Your task to perform on an android device: Open Google Maps and go to "Timeline" Image 0: 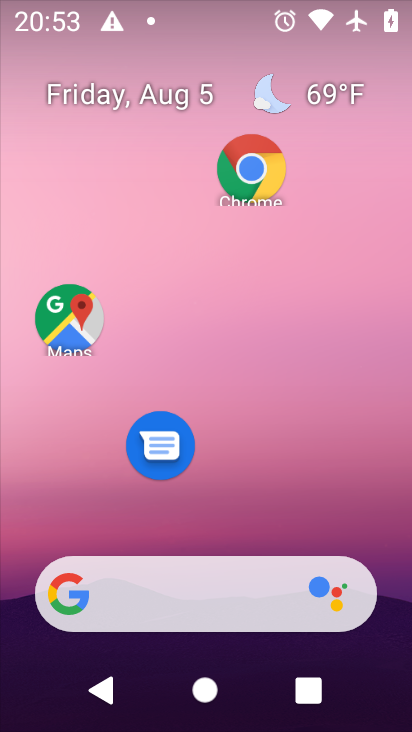
Step 0: click (55, 334)
Your task to perform on an android device: Open Google Maps and go to "Timeline" Image 1: 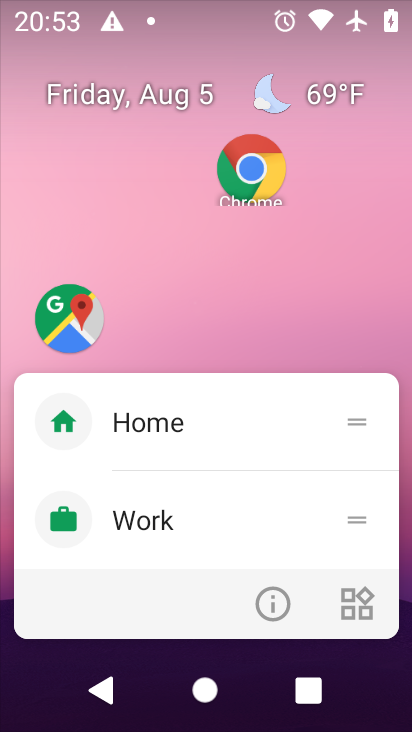
Step 1: click (75, 328)
Your task to perform on an android device: Open Google Maps and go to "Timeline" Image 2: 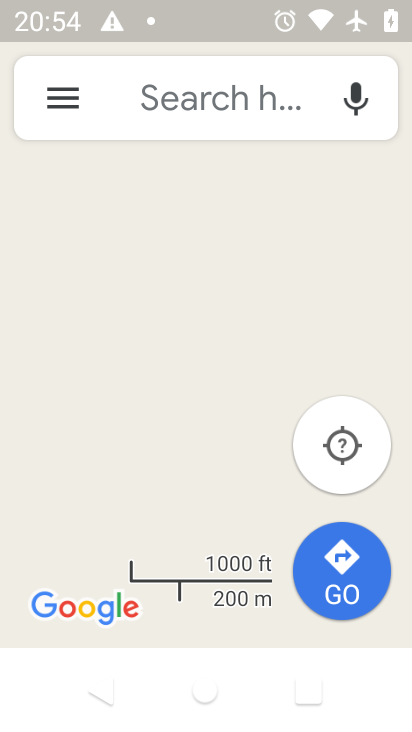
Step 2: click (74, 102)
Your task to perform on an android device: Open Google Maps and go to "Timeline" Image 3: 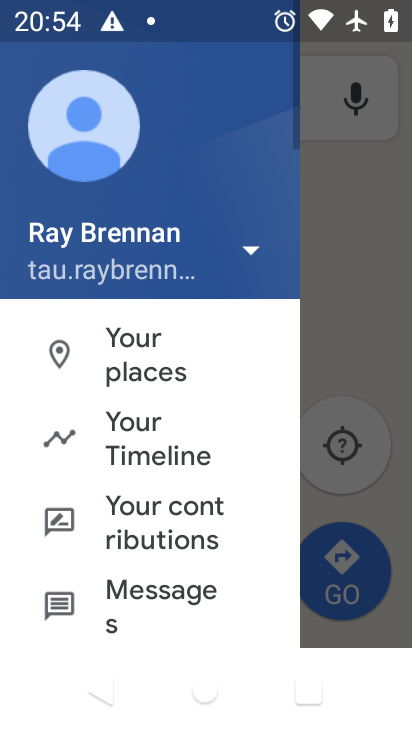
Step 3: click (182, 440)
Your task to perform on an android device: Open Google Maps and go to "Timeline" Image 4: 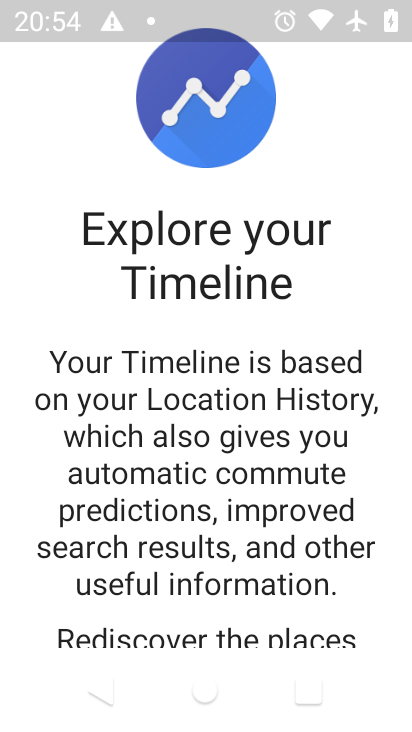
Step 4: drag from (257, 594) to (260, 183)
Your task to perform on an android device: Open Google Maps and go to "Timeline" Image 5: 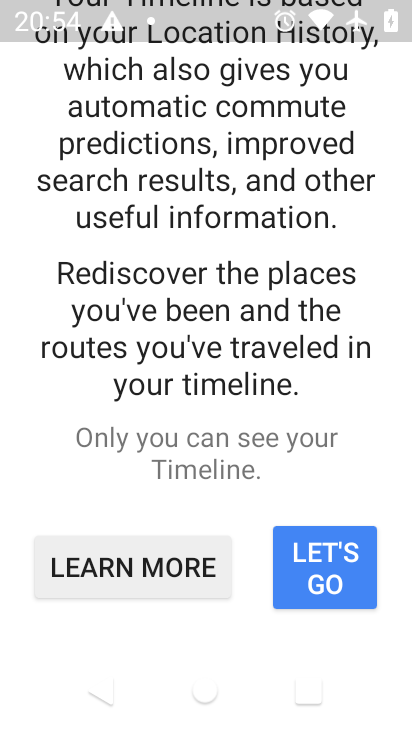
Step 5: click (306, 580)
Your task to perform on an android device: Open Google Maps and go to "Timeline" Image 6: 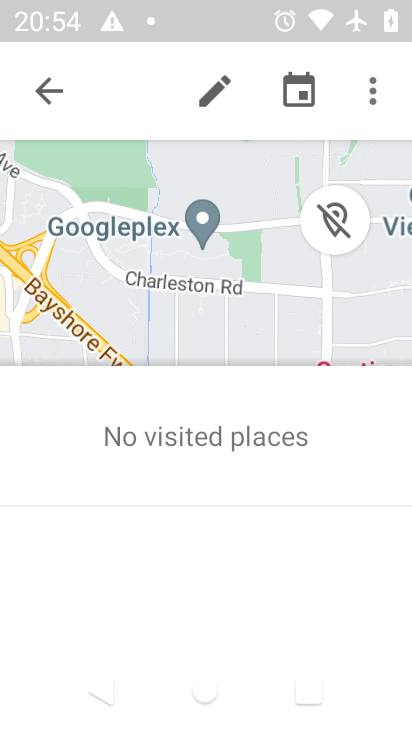
Step 6: task complete